Your task to perform on an android device: Go to Android settings Image 0: 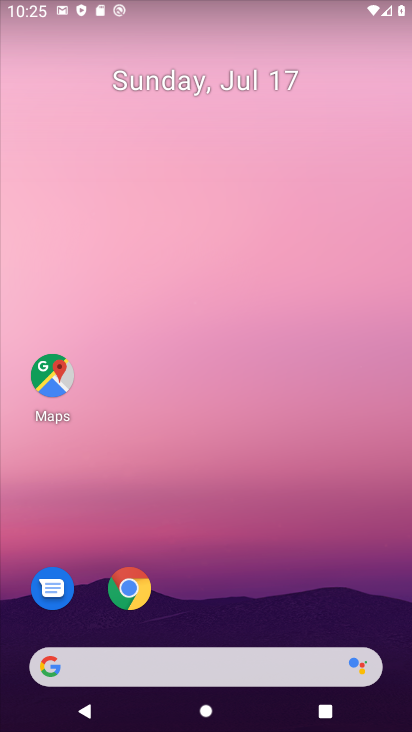
Step 0: press home button
Your task to perform on an android device: Go to Android settings Image 1: 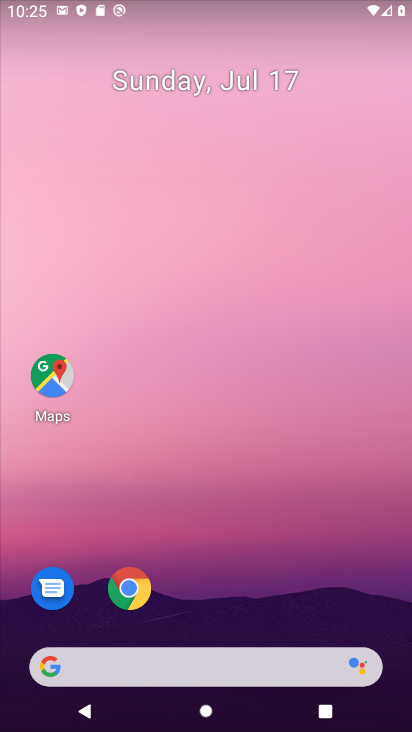
Step 1: drag from (360, 609) to (394, 216)
Your task to perform on an android device: Go to Android settings Image 2: 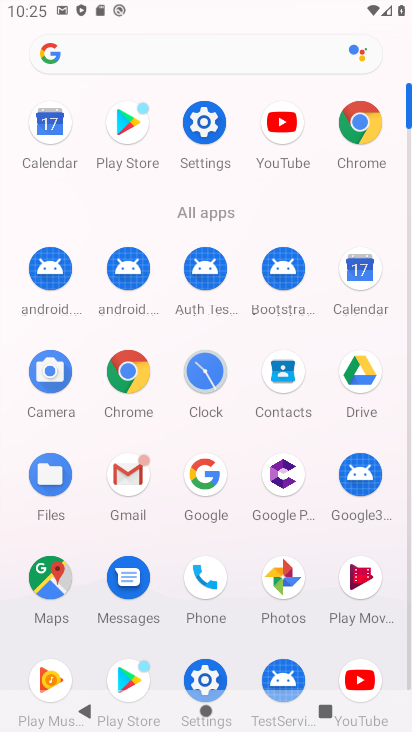
Step 2: click (208, 108)
Your task to perform on an android device: Go to Android settings Image 3: 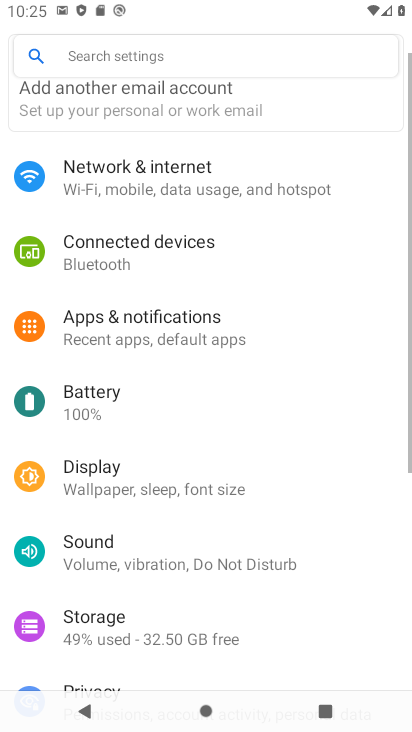
Step 3: drag from (283, 610) to (252, 88)
Your task to perform on an android device: Go to Android settings Image 4: 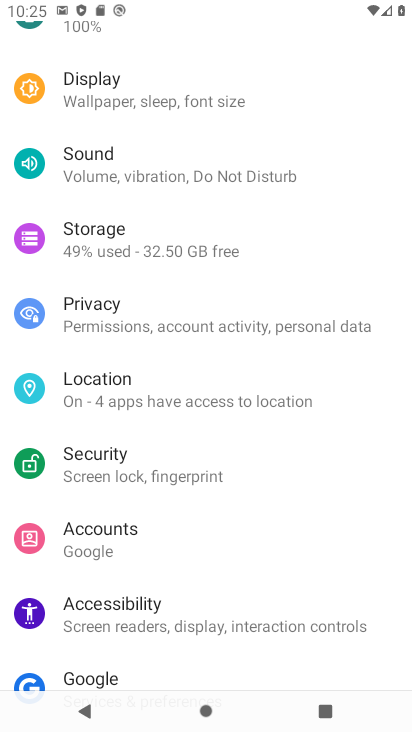
Step 4: drag from (126, 515) to (206, 90)
Your task to perform on an android device: Go to Android settings Image 5: 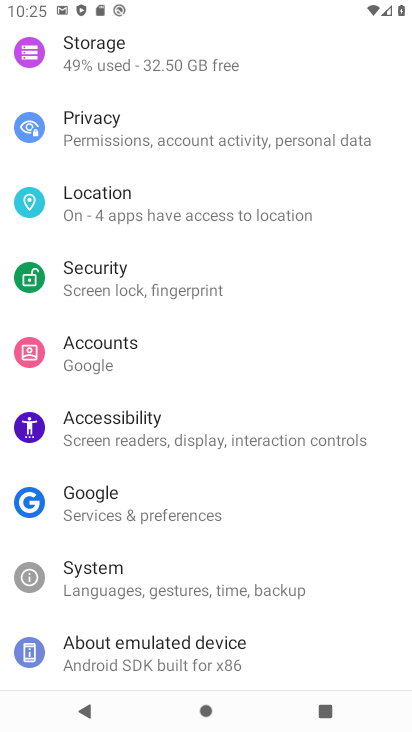
Step 5: click (53, 632)
Your task to perform on an android device: Go to Android settings Image 6: 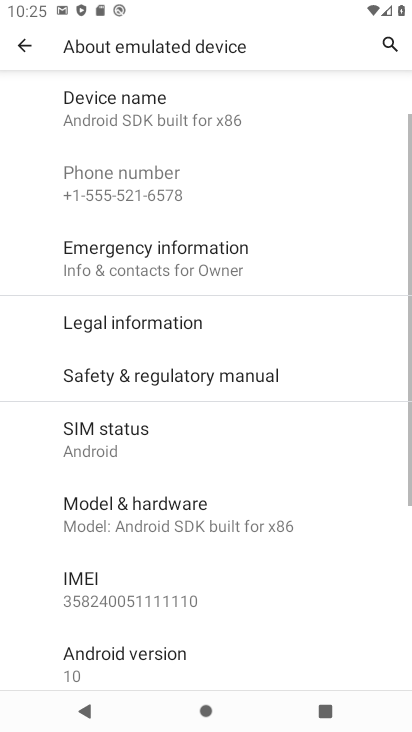
Step 6: click (129, 645)
Your task to perform on an android device: Go to Android settings Image 7: 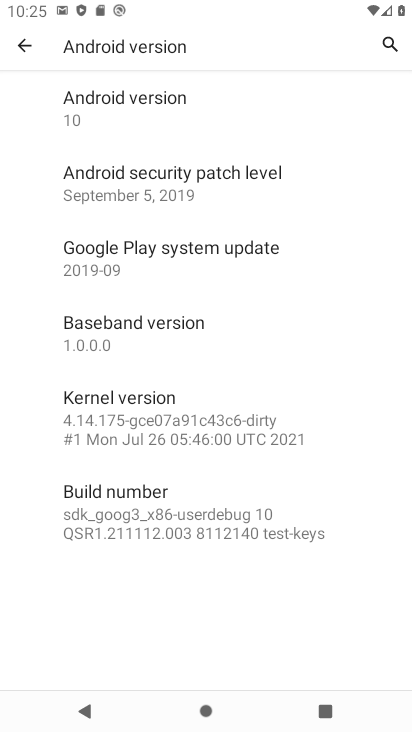
Step 7: task complete